Your task to perform on an android device: set the timer Image 0: 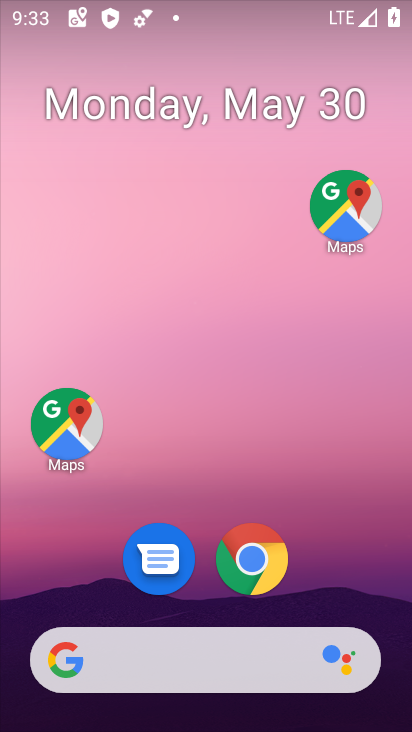
Step 0: drag from (358, 521) to (231, 35)
Your task to perform on an android device: set the timer Image 1: 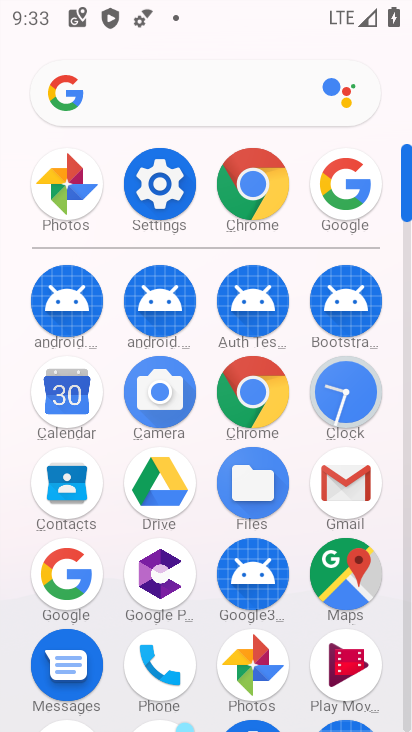
Step 1: click (353, 394)
Your task to perform on an android device: set the timer Image 2: 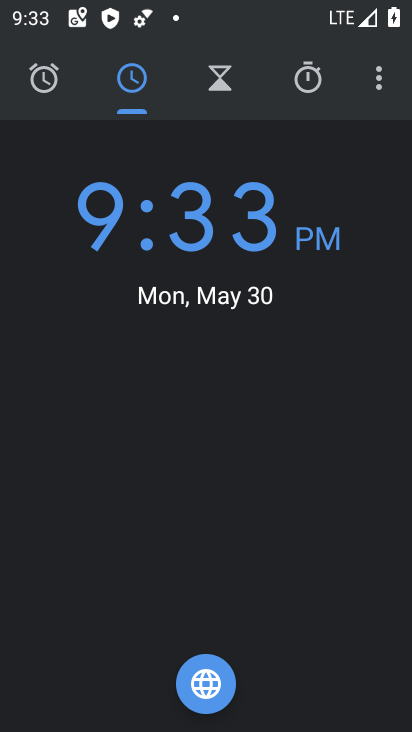
Step 2: click (231, 80)
Your task to perform on an android device: set the timer Image 3: 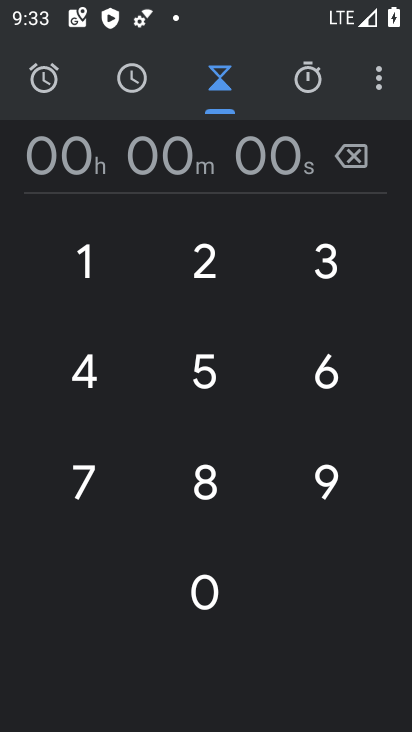
Step 3: click (203, 361)
Your task to perform on an android device: set the timer Image 4: 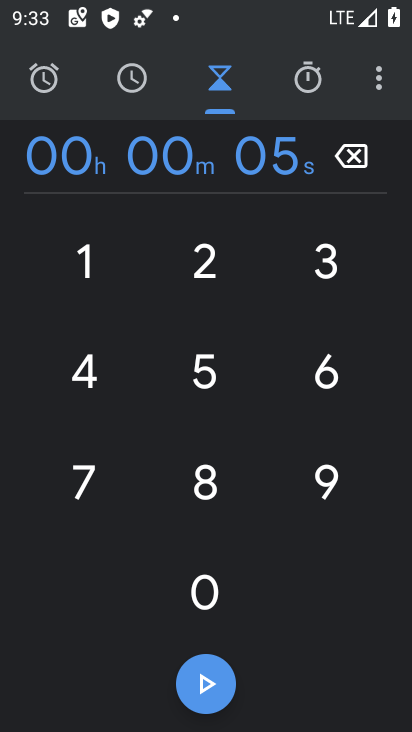
Step 4: task complete